Your task to perform on an android device: Open Maps and search for coffee Image 0: 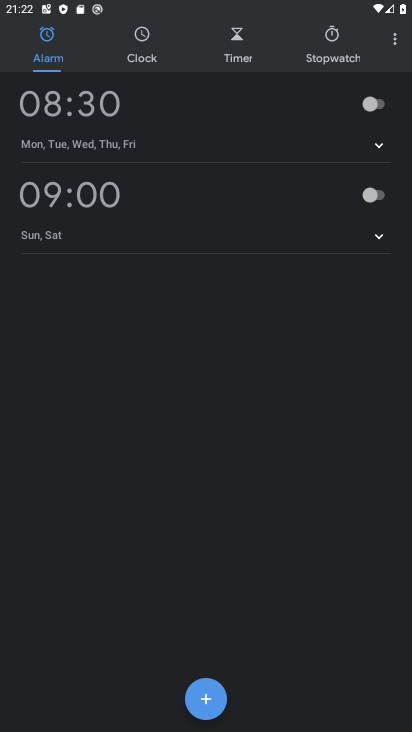
Step 0: press home button
Your task to perform on an android device: Open Maps and search for coffee Image 1: 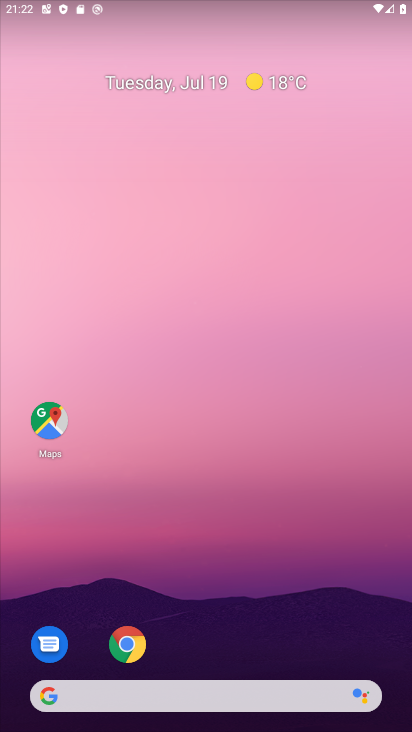
Step 1: drag from (235, 723) to (235, 149)
Your task to perform on an android device: Open Maps and search for coffee Image 2: 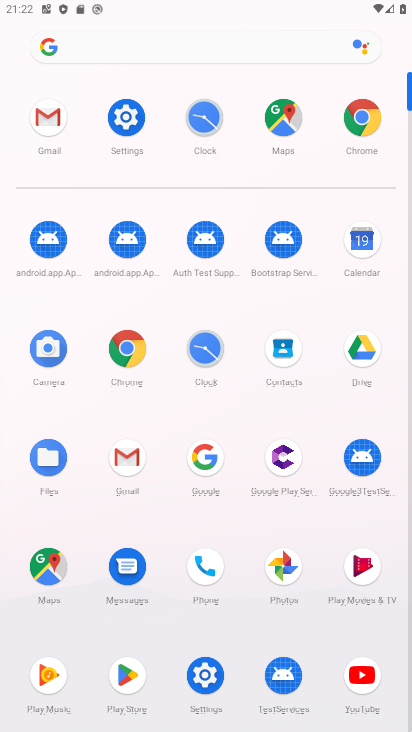
Step 2: click (44, 561)
Your task to perform on an android device: Open Maps and search for coffee Image 3: 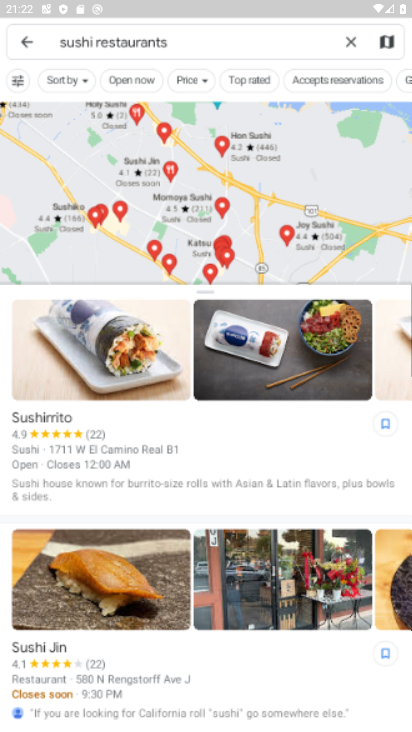
Step 3: click (349, 40)
Your task to perform on an android device: Open Maps and search for coffee Image 4: 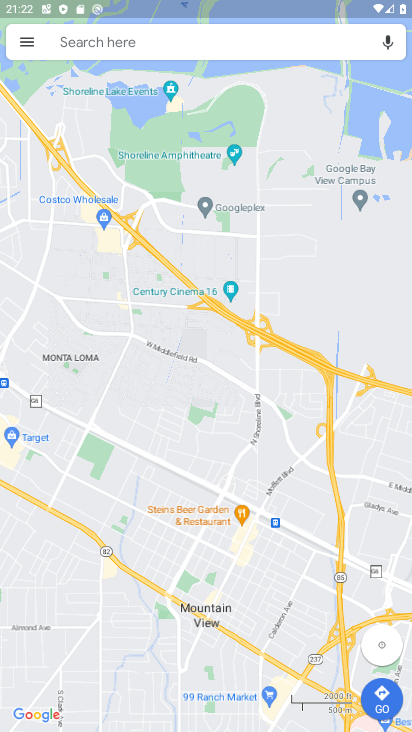
Step 4: click (209, 43)
Your task to perform on an android device: Open Maps and search for coffee Image 5: 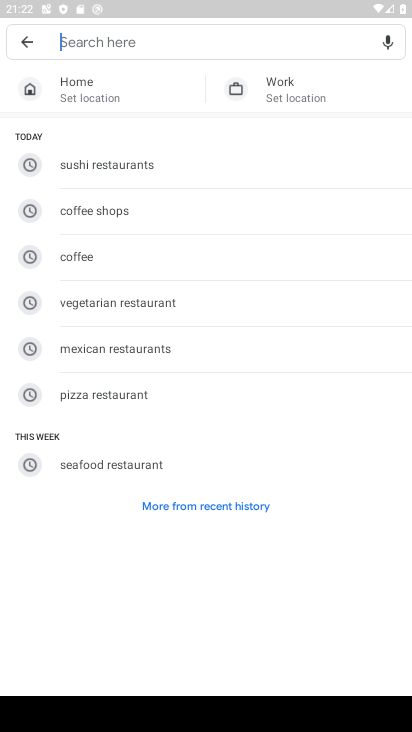
Step 5: type "coffee"
Your task to perform on an android device: Open Maps and search for coffee Image 6: 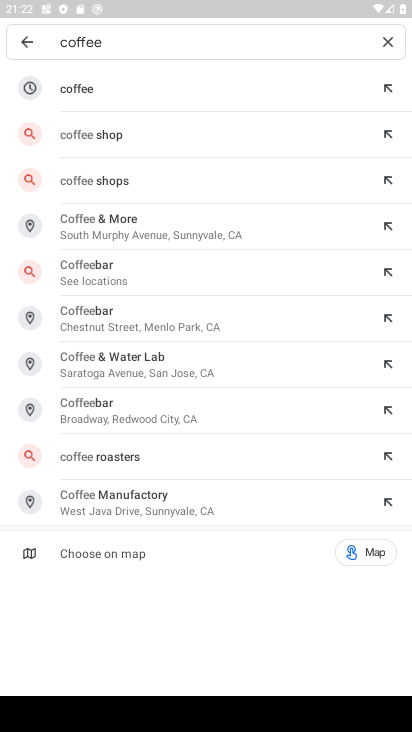
Step 6: click (86, 88)
Your task to perform on an android device: Open Maps and search for coffee Image 7: 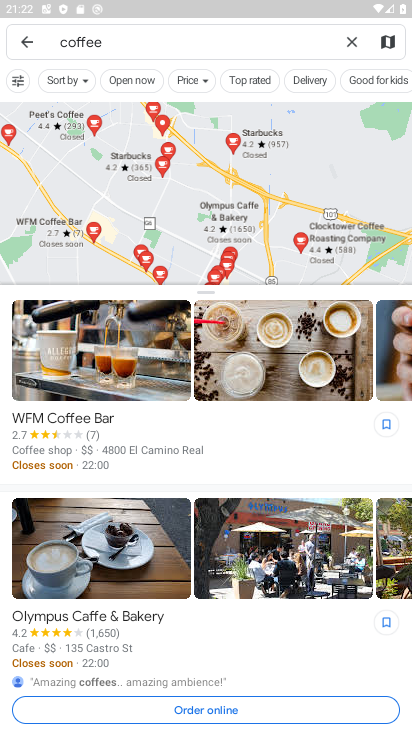
Step 7: task complete